Your task to perform on an android device: check battery use Image 0: 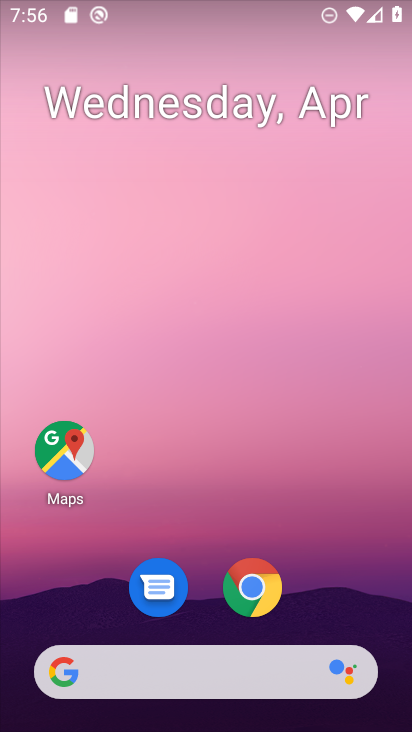
Step 0: drag from (342, 479) to (310, 5)
Your task to perform on an android device: check battery use Image 1: 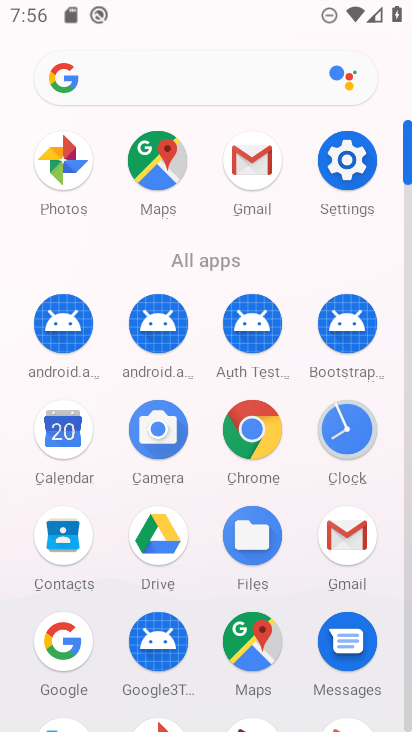
Step 1: click (353, 165)
Your task to perform on an android device: check battery use Image 2: 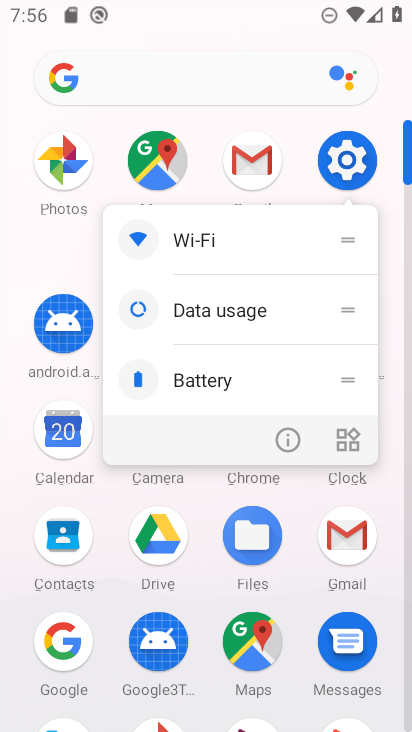
Step 2: click (354, 165)
Your task to perform on an android device: check battery use Image 3: 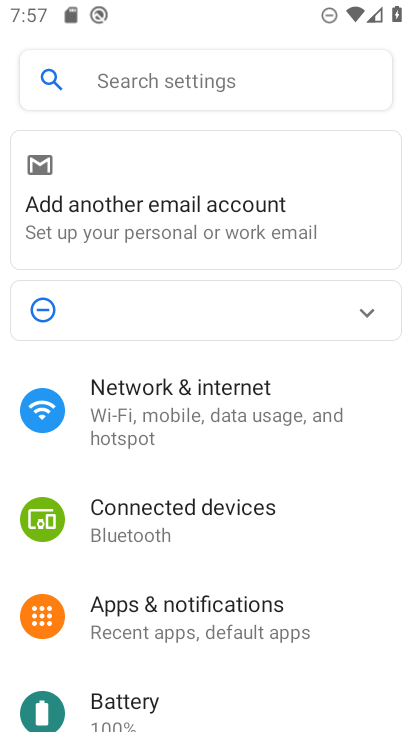
Step 3: click (134, 701)
Your task to perform on an android device: check battery use Image 4: 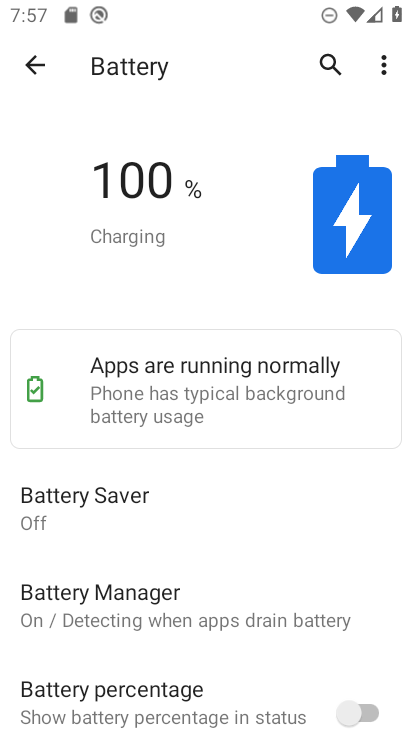
Step 4: click (386, 68)
Your task to perform on an android device: check battery use Image 5: 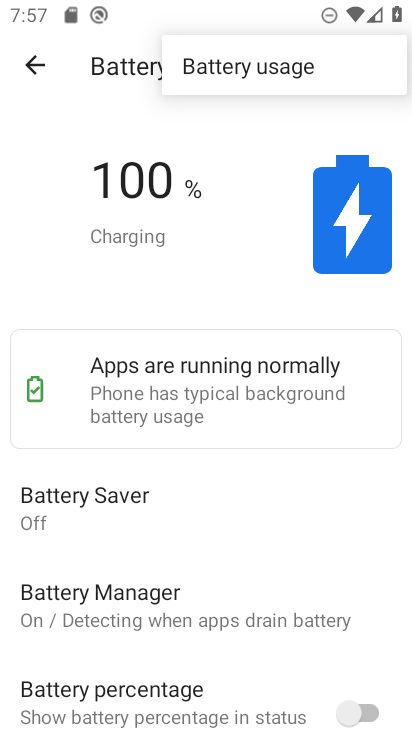
Step 5: click (301, 66)
Your task to perform on an android device: check battery use Image 6: 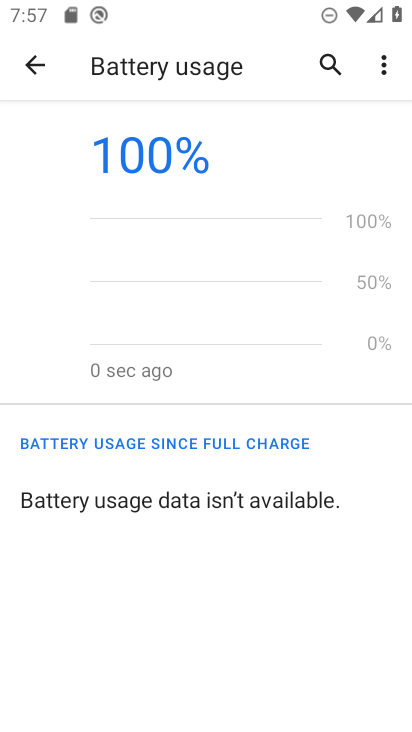
Step 6: task complete